Your task to perform on an android device: stop showing notifications on the lock screen Image 0: 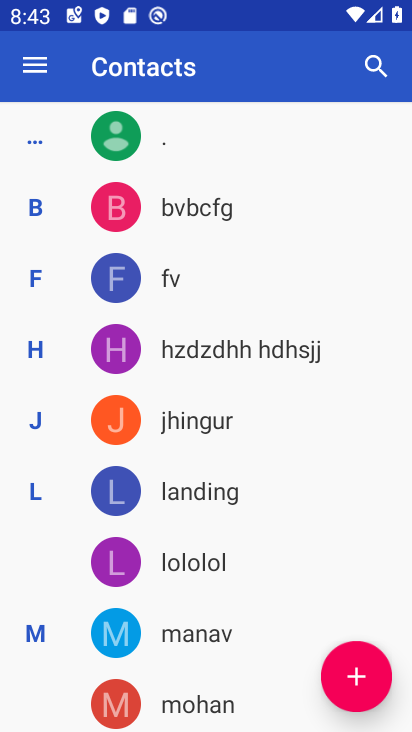
Step 0: press home button
Your task to perform on an android device: stop showing notifications on the lock screen Image 1: 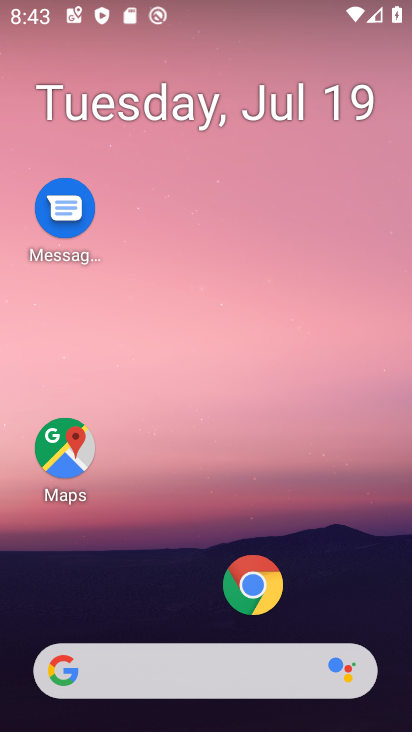
Step 1: drag from (196, 637) to (149, 127)
Your task to perform on an android device: stop showing notifications on the lock screen Image 2: 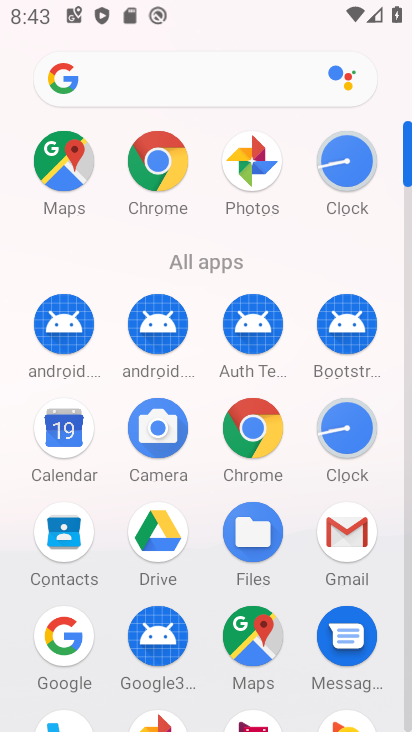
Step 2: drag from (207, 469) to (183, 10)
Your task to perform on an android device: stop showing notifications on the lock screen Image 3: 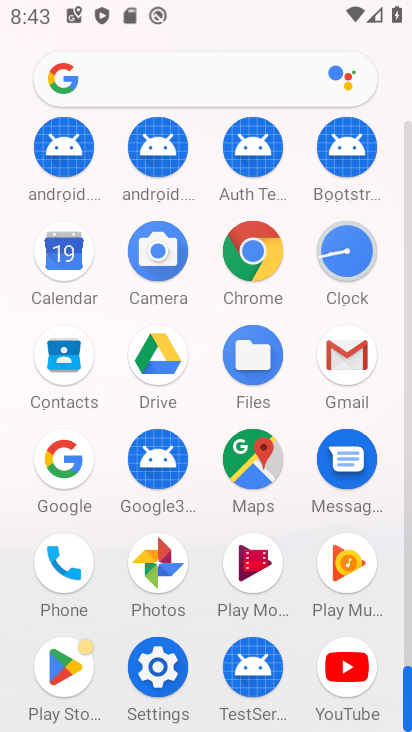
Step 3: click (146, 683)
Your task to perform on an android device: stop showing notifications on the lock screen Image 4: 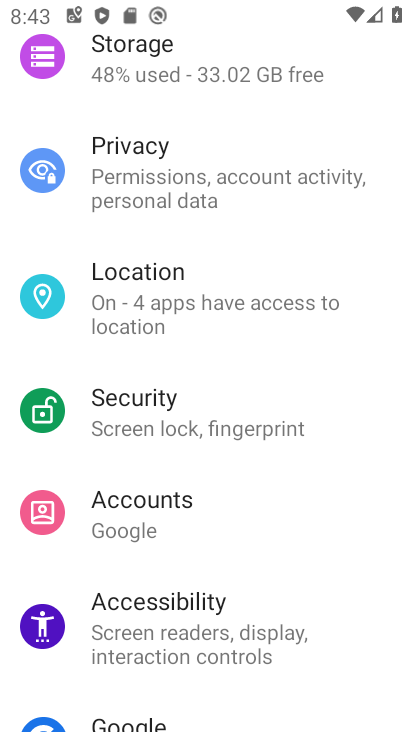
Step 4: drag from (155, 268) to (118, 626)
Your task to perform on an android device: stop showing notifications on the lock screen Image 5: 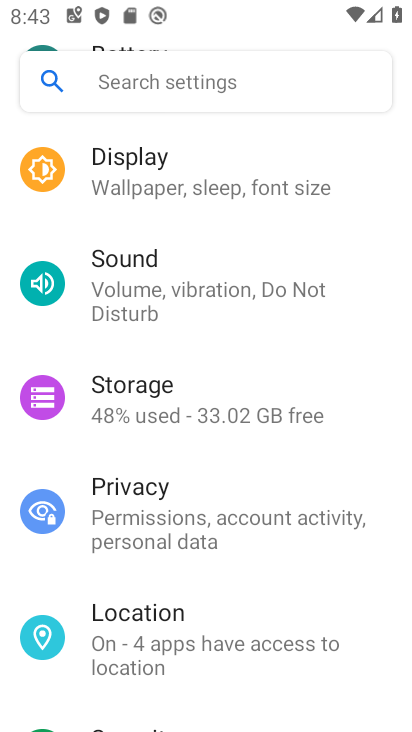
Step 5: drag from (173, 221) to (120, 533)
Your task to perform on an android device: stop showing notifications on the lock screen Image 6: 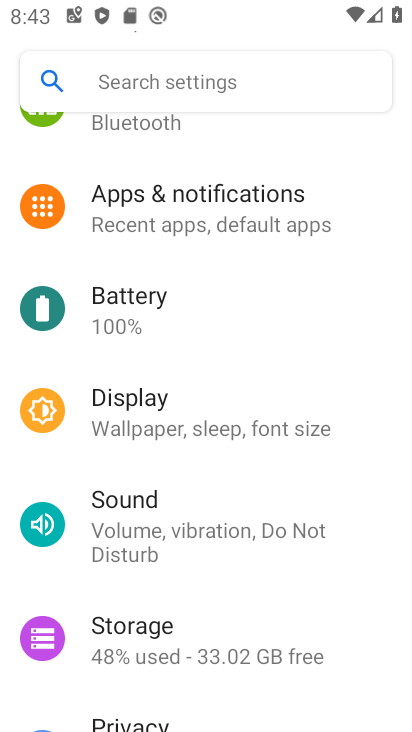
Step 6: click (194, 209)
Your task to perform on an android device: stop showing notifications on the lock screen Image 7: 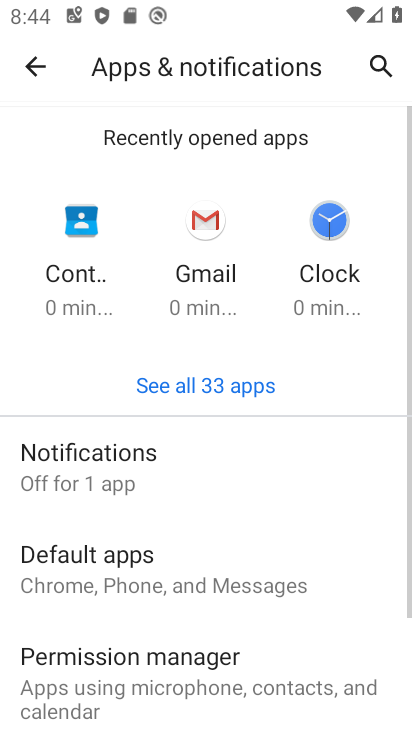
Step 7: click (67, 476)
Your task to perform on an android device: stop showing notifications on the lock screen Image 8: 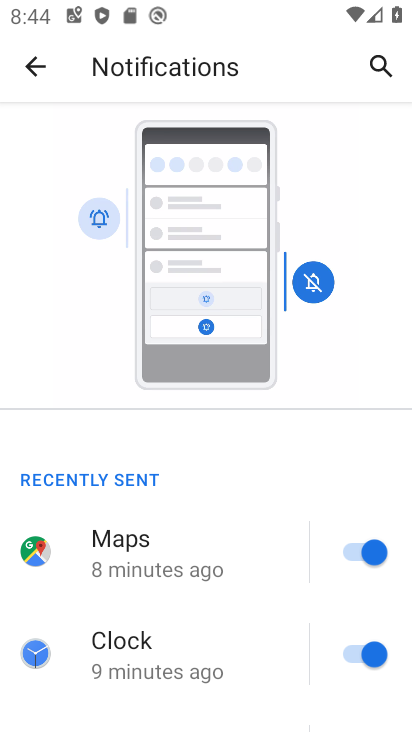
Step 8: drag from (114, 665) to (98, 241)
Your task to perform on an android device: stop showing notifications on the lock screen Image 9: 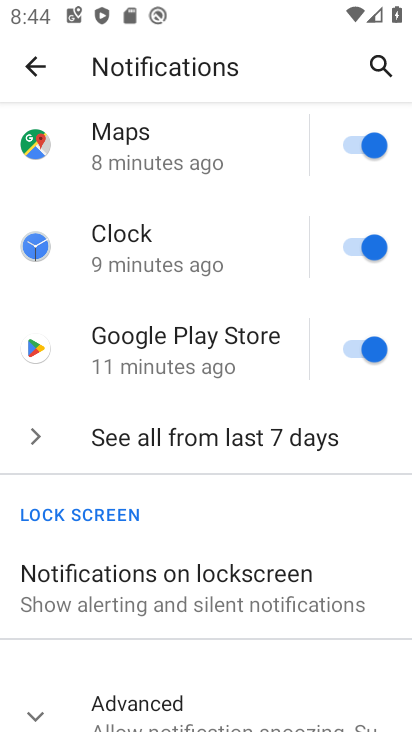
Step 9: click (104, 584)
Your task to perform on an android device: stop showing notifications on the lock screen Image 10: 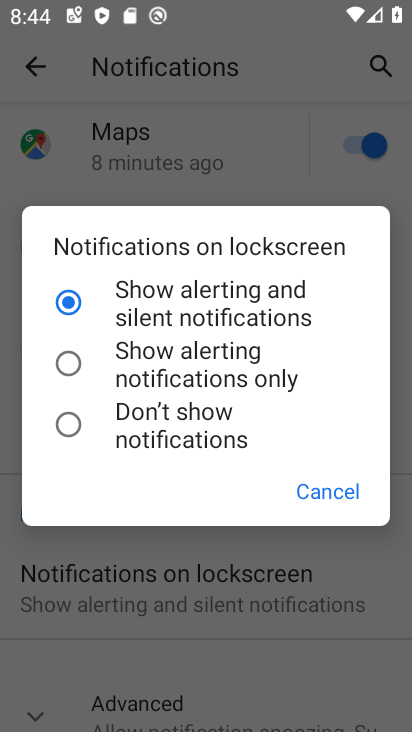
Step 10: click (117, 443)
Your task to perform on an android device: stop showing notifications on the lock screen Image 11: 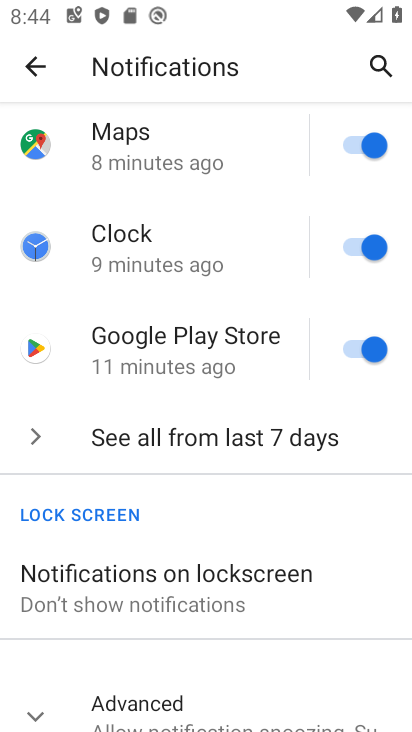
Step 11: task complete